Your task to perform on an android device: Open the stopwatch Image 0: 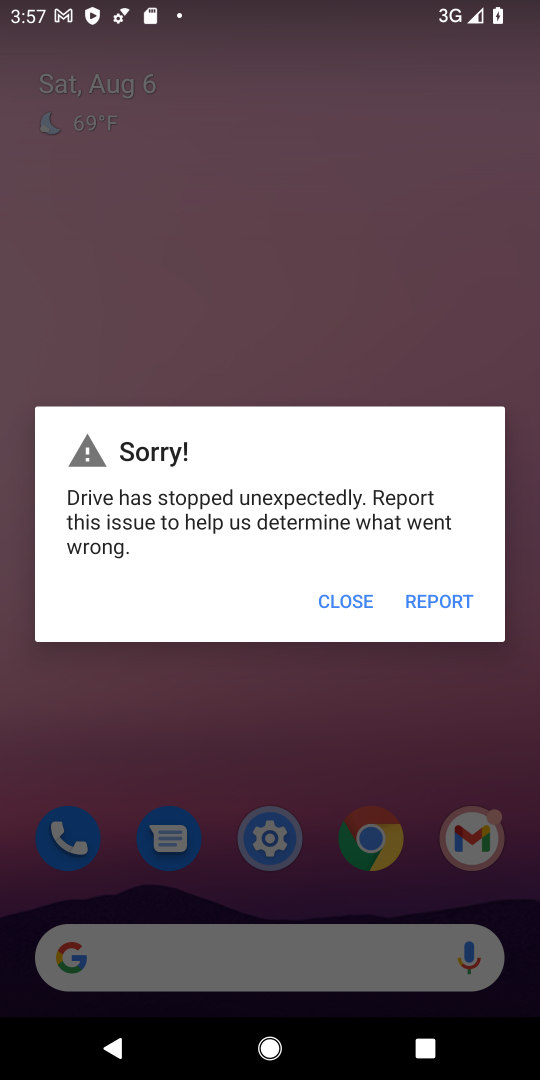
Step 0: press home button
Your task to perform on an android device: Open the stopwatch Image 1: 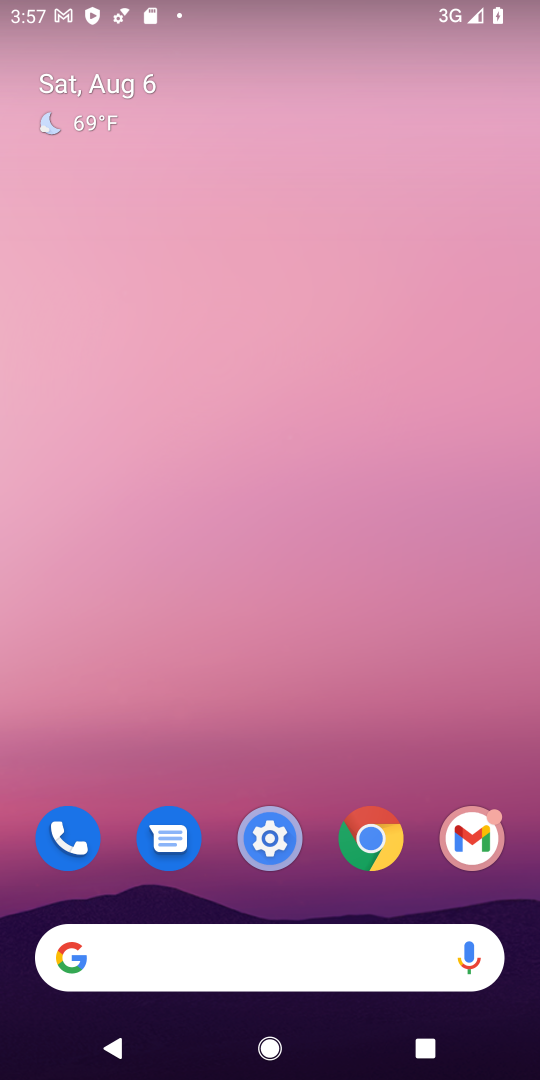
Step 1: drag from (52, 993) to (483, 246)
Your task to perform on an android device: Open the stopwatch Image 2: 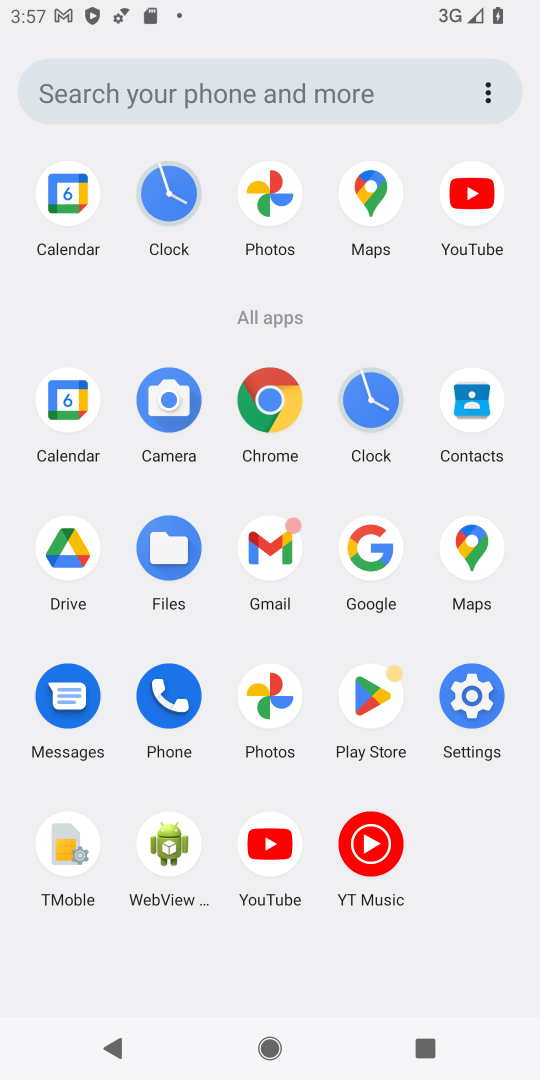
Step 2: click (359, 406)
Your task to perform on an android device: Open the stopwatch Image 3: 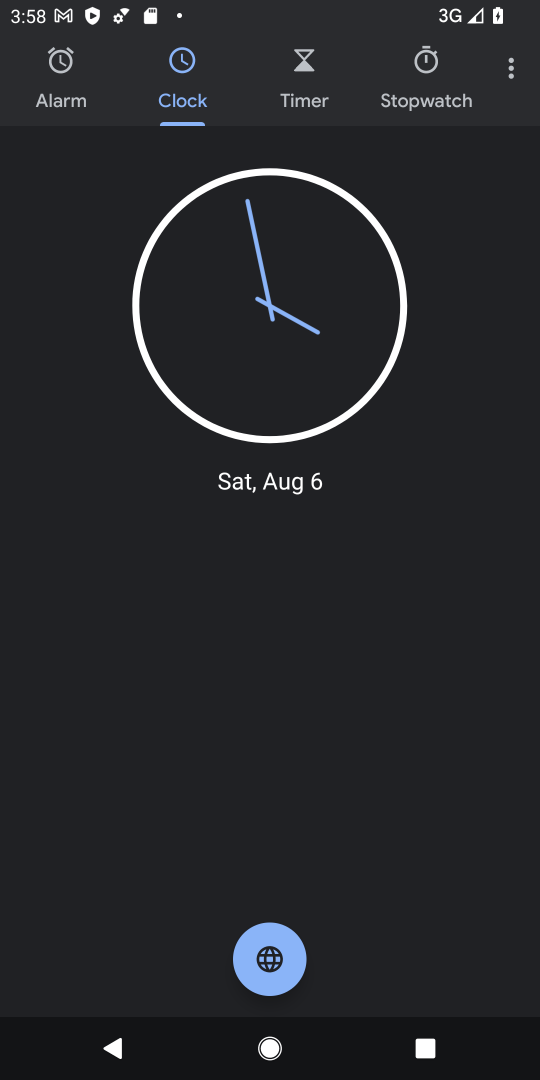
Step 3: click (49, 77)
Your task to perform on an android device: Open the stopwatch Image 4: 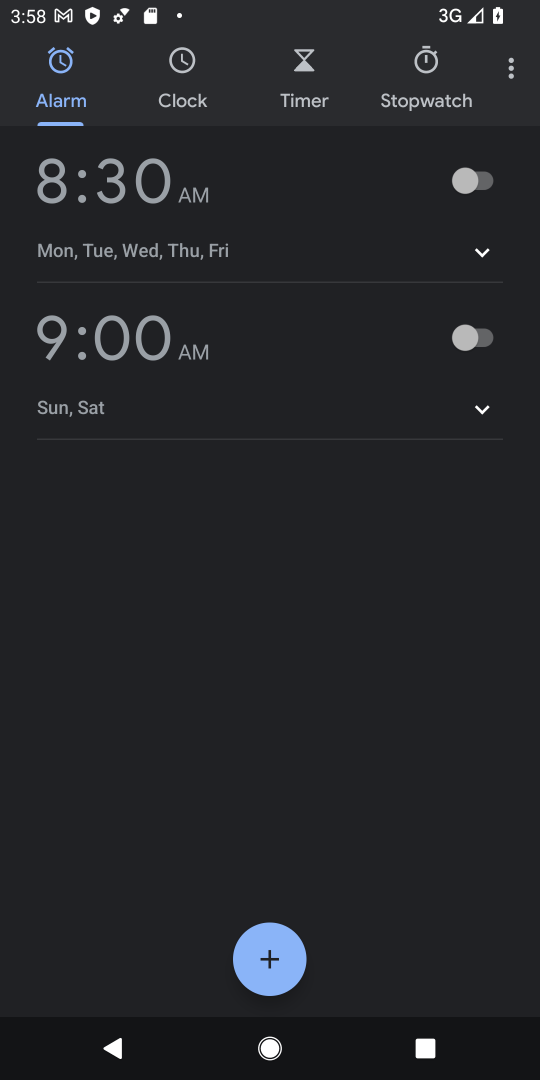
Step 4: click (438, 90)
Your task to perform on an android device: Open the stopwatch Image 5: 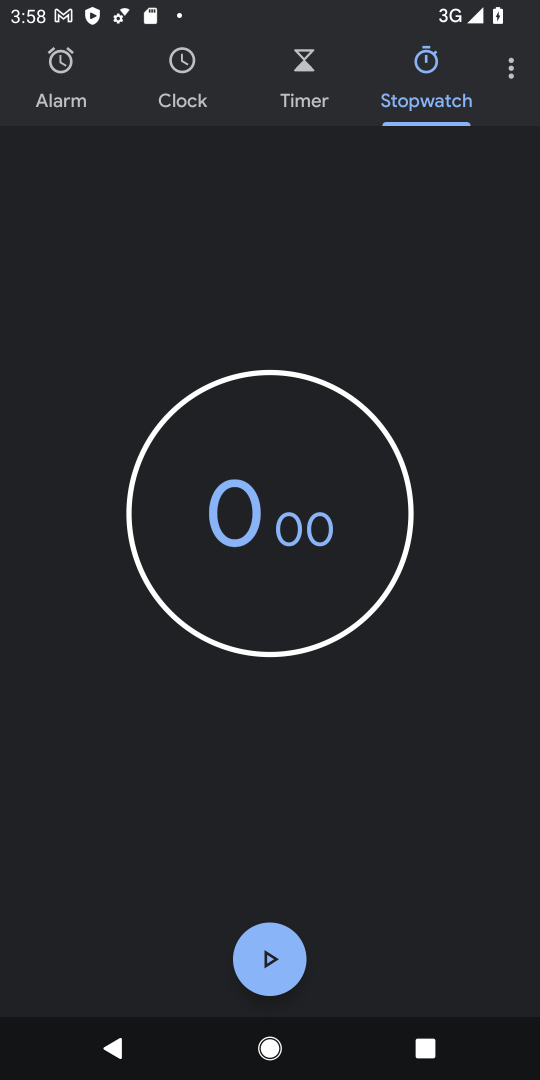
Step 5: task complete